Your task to perform on an android device: turn notification dots on Image 0: 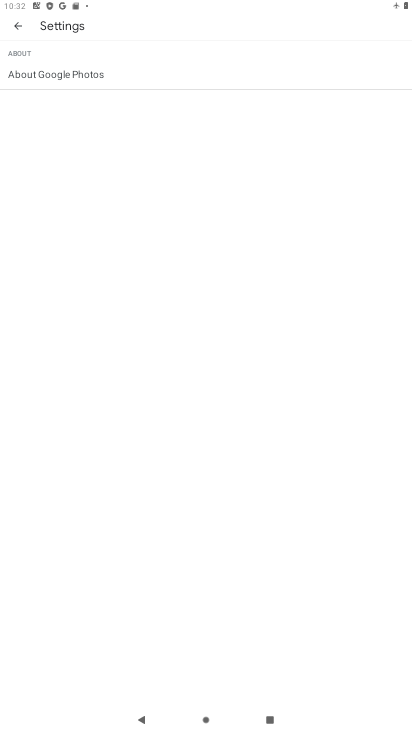
Step 0: press home button
Your task to perform on an android device: turn notification dots on Image 1: 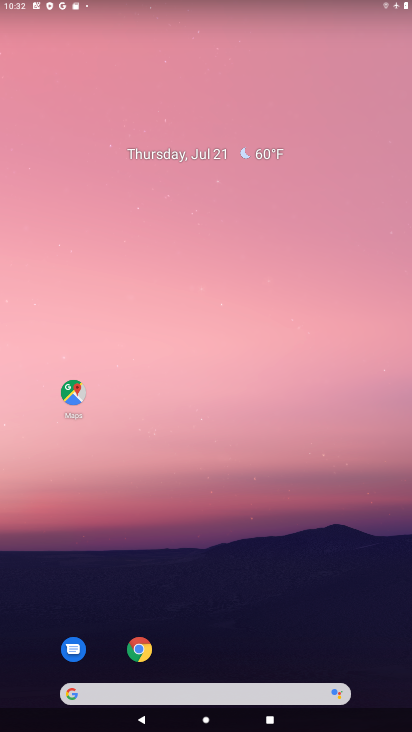
Step 1: drag from (194, 696) to (309, 61)
Your task to perform on an android device: turn notification dots on Image 2: 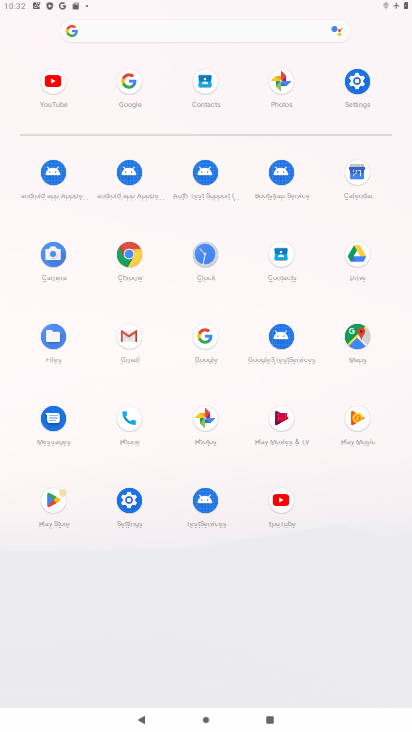
Step 2: click (359, 80)
Your task to perform on an android device: turn notification dots on Image 3: 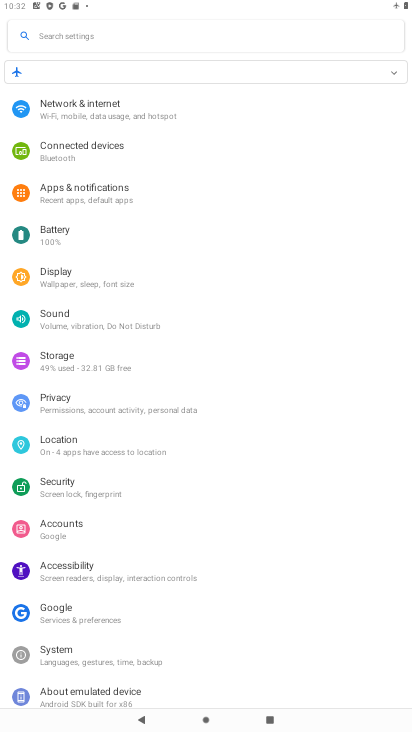
Step 3: click (96, 197)
Your task to perform on an android device: turn notification dots on Image 4: 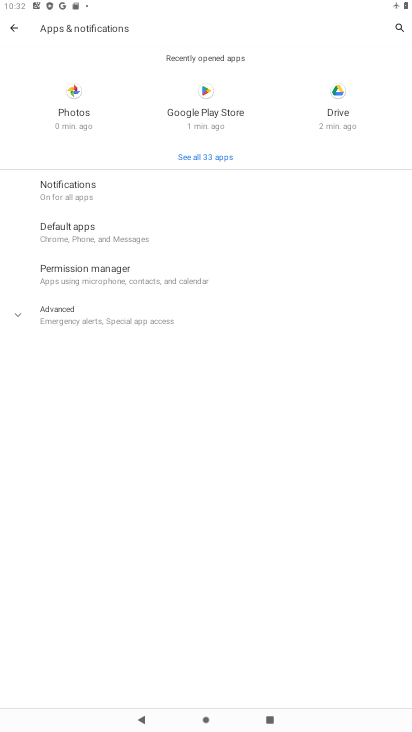
Step 4: click (75, 190)
Your task to perform on an android device: turn notification dots on Image 5: 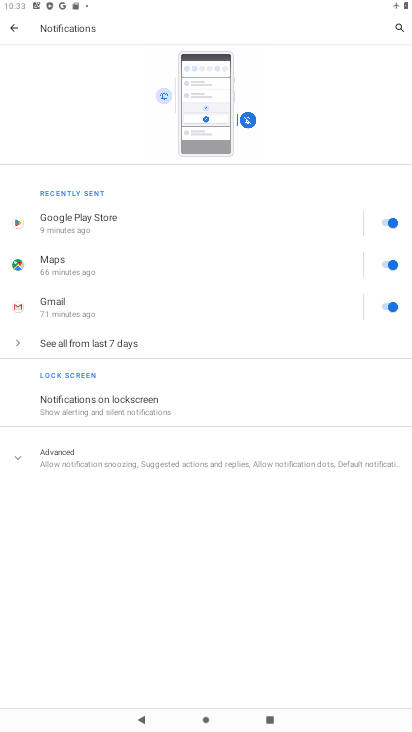
Step 5: click (113, 462)
Your task to perform on an android device: turn notification dots on Image 6: 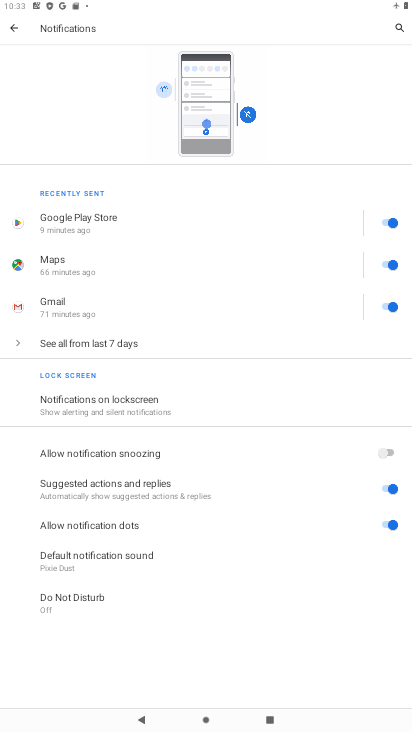
Step 6: task complete